Your task to perform on an android device: set an alarm Image 0: 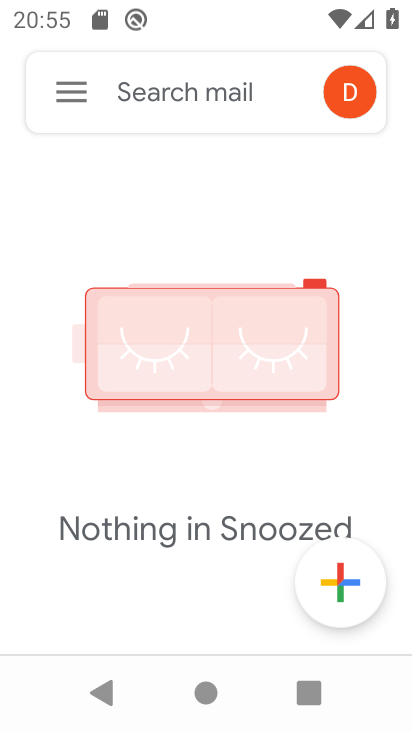
Step 0: press home button
Your task to perform on an android device: set an alarm Image 1: 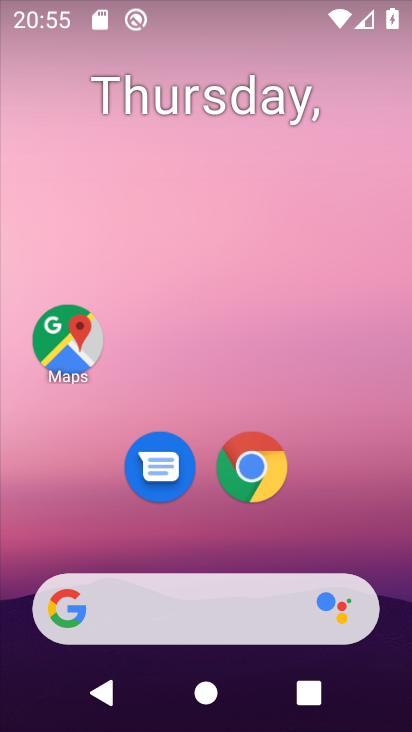
Step 1: drag from (328, 520) to (311, 183)
Your task to perform on an android device: set an alarm Image 2: 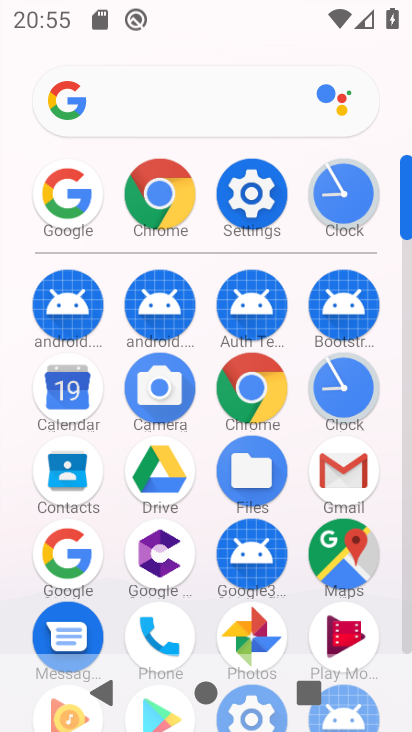
Step 2: click (324, 390)
Your task to perform on an android device: set an alarm Image 3: 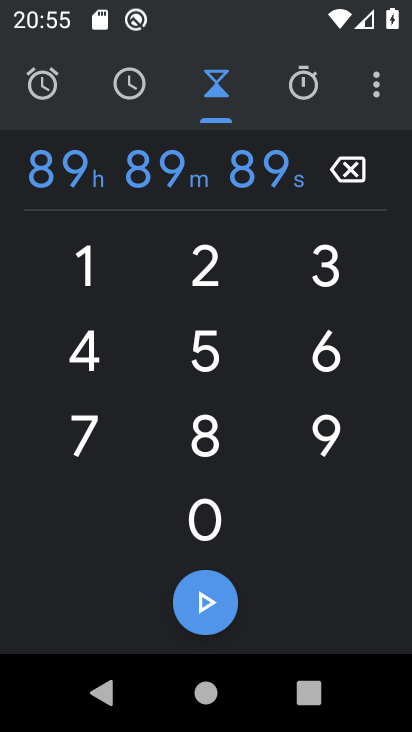
Step 3: click (45, 97)
Your task to perform on an android device: set an alarm Image 4: 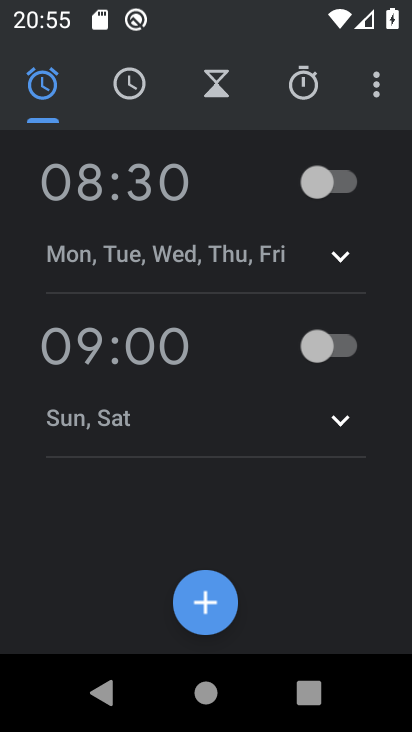
Step 4: click (347, 170)
Your task to perform on an android device: set an alarm Image 5: 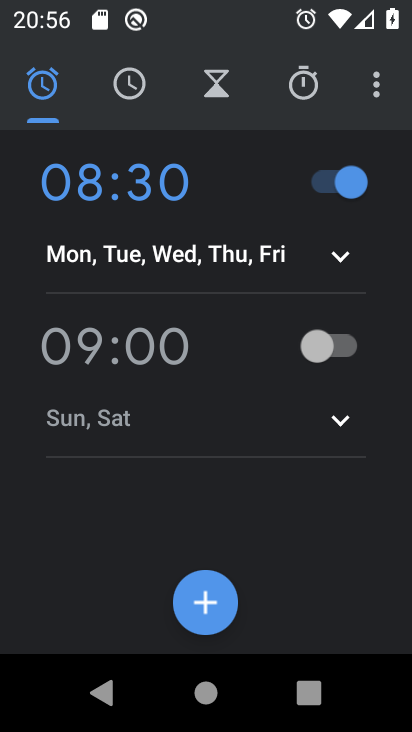
Step 5: click (344, 351)
Your task to perform on an android device: set an alarm Image 6: 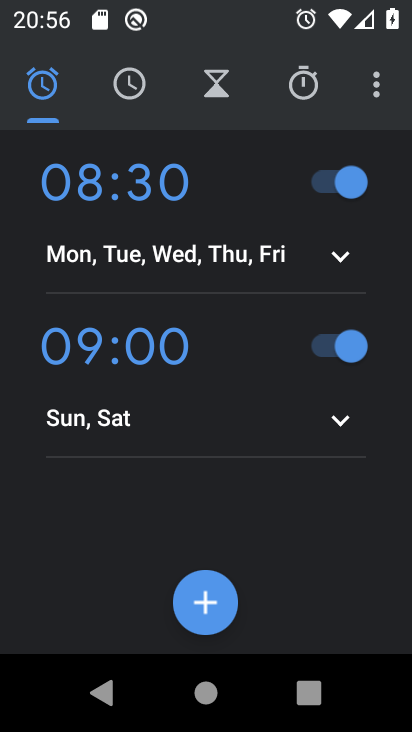
Step 6: task complete